Your task to perform on an android device: Open the camera Image 0: 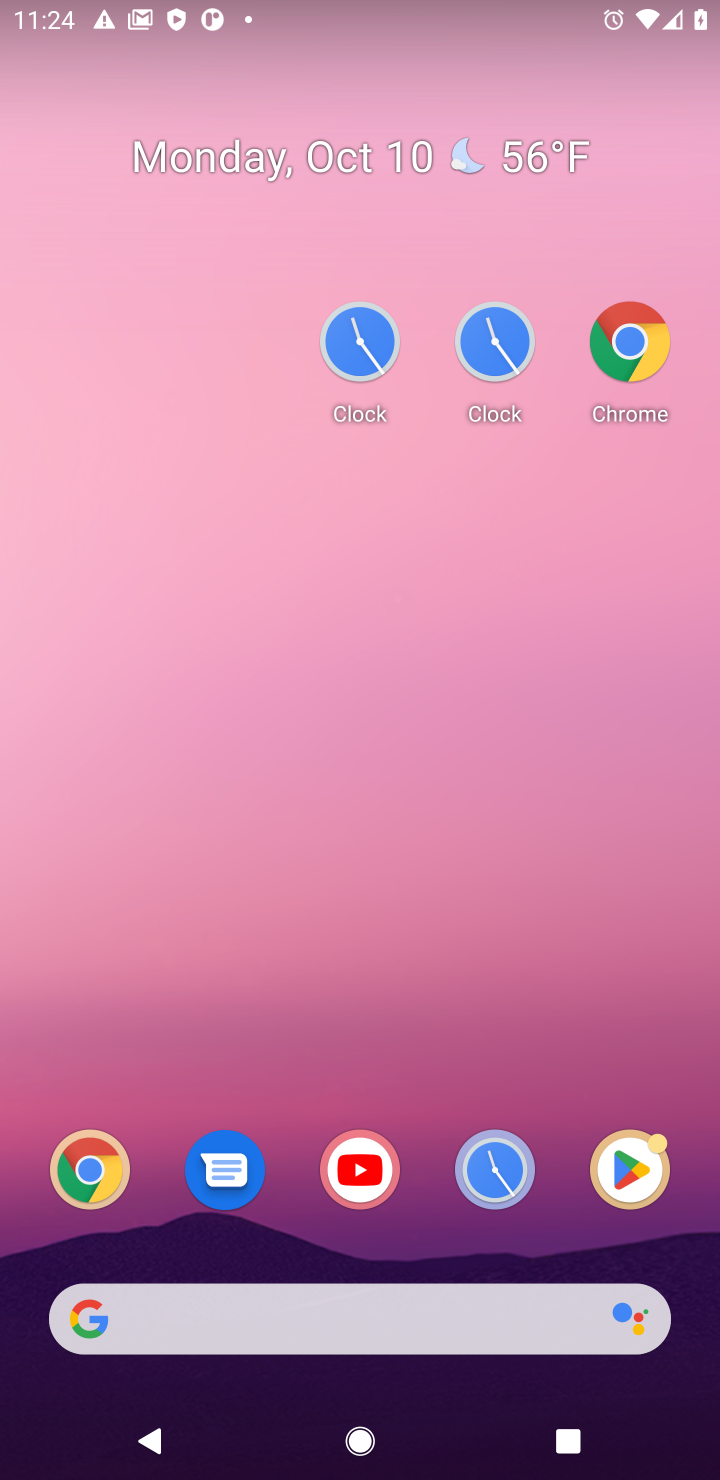
Step 0: drag from (408, 1144) to (510, 48)
Your task to perform on an android device: Open the camera Image 1: 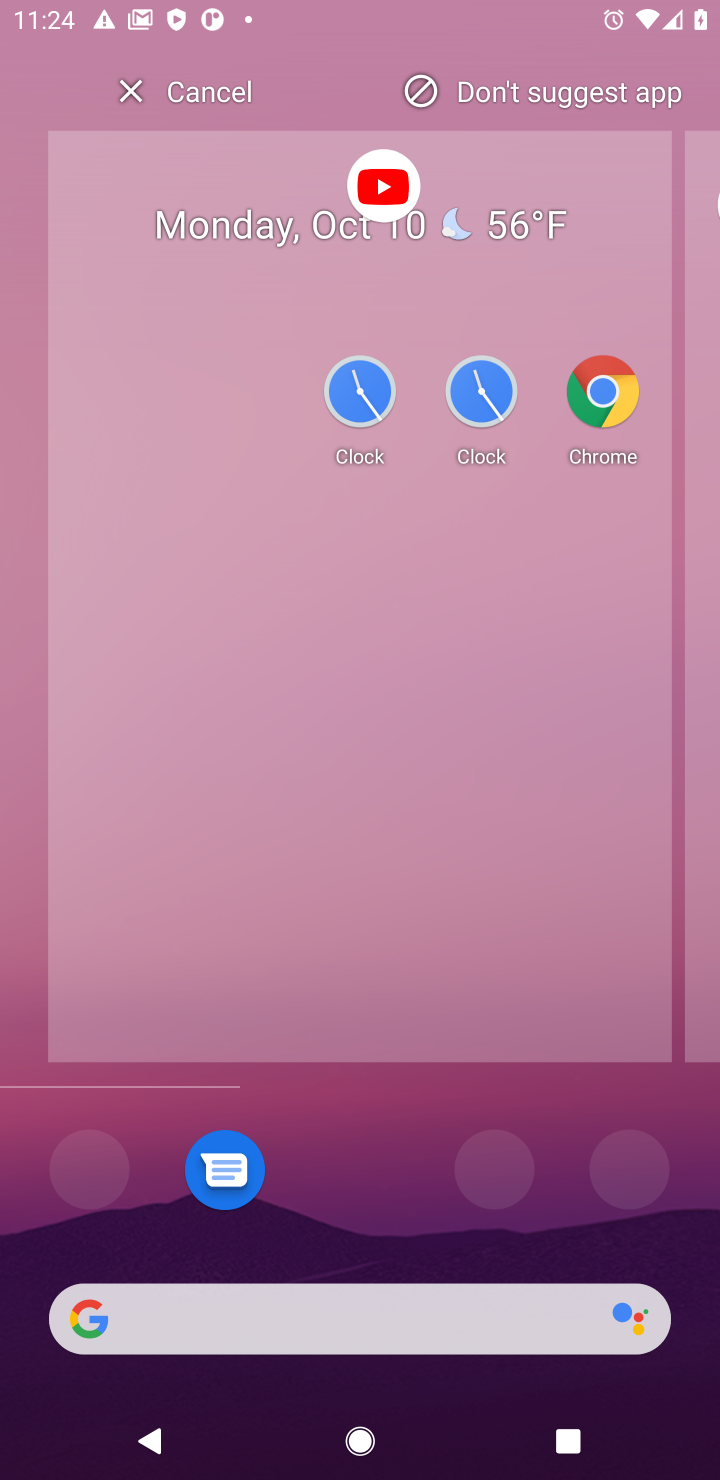
Step 1: click (233, 523)
Your task to perform on an android device: Open the camera Image 2: 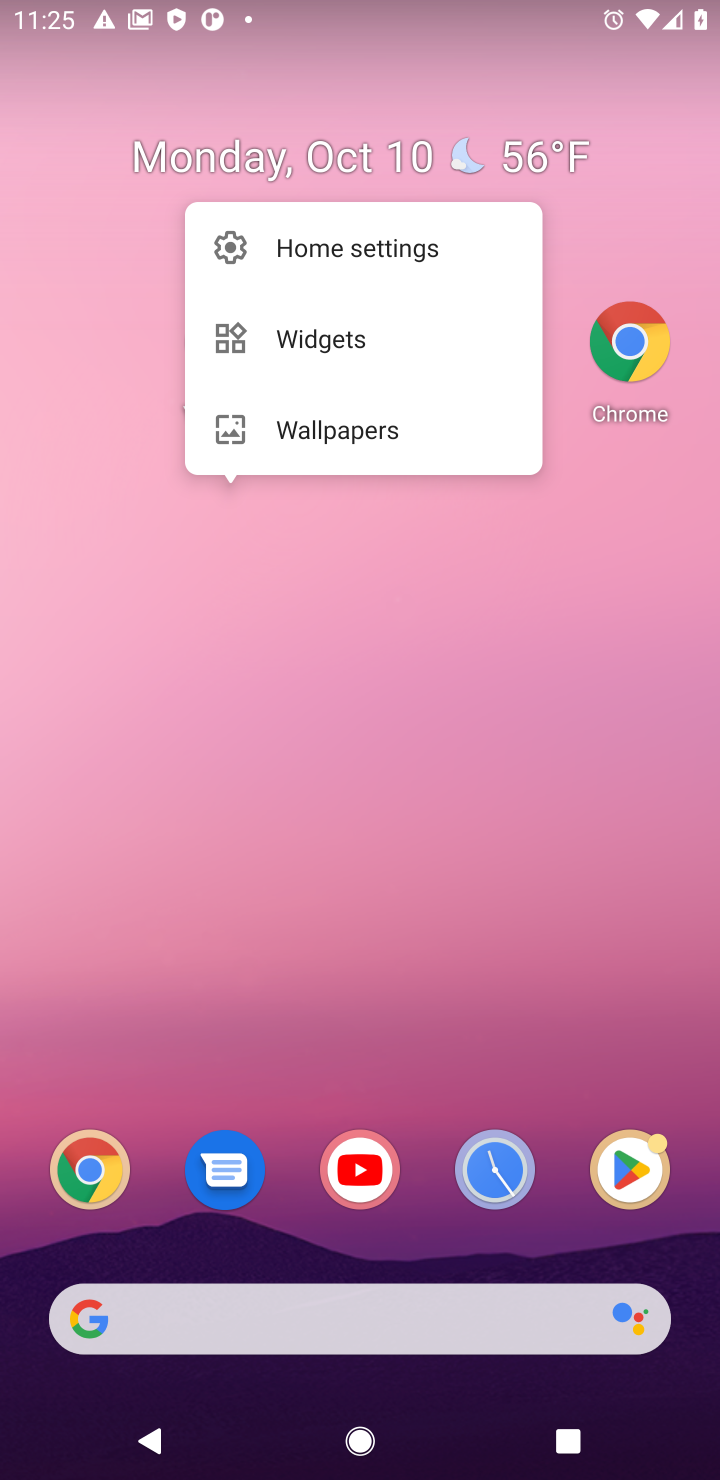
Step 2: click (387, 764)
Your task to perform on an android device: Open the camera Image 3: 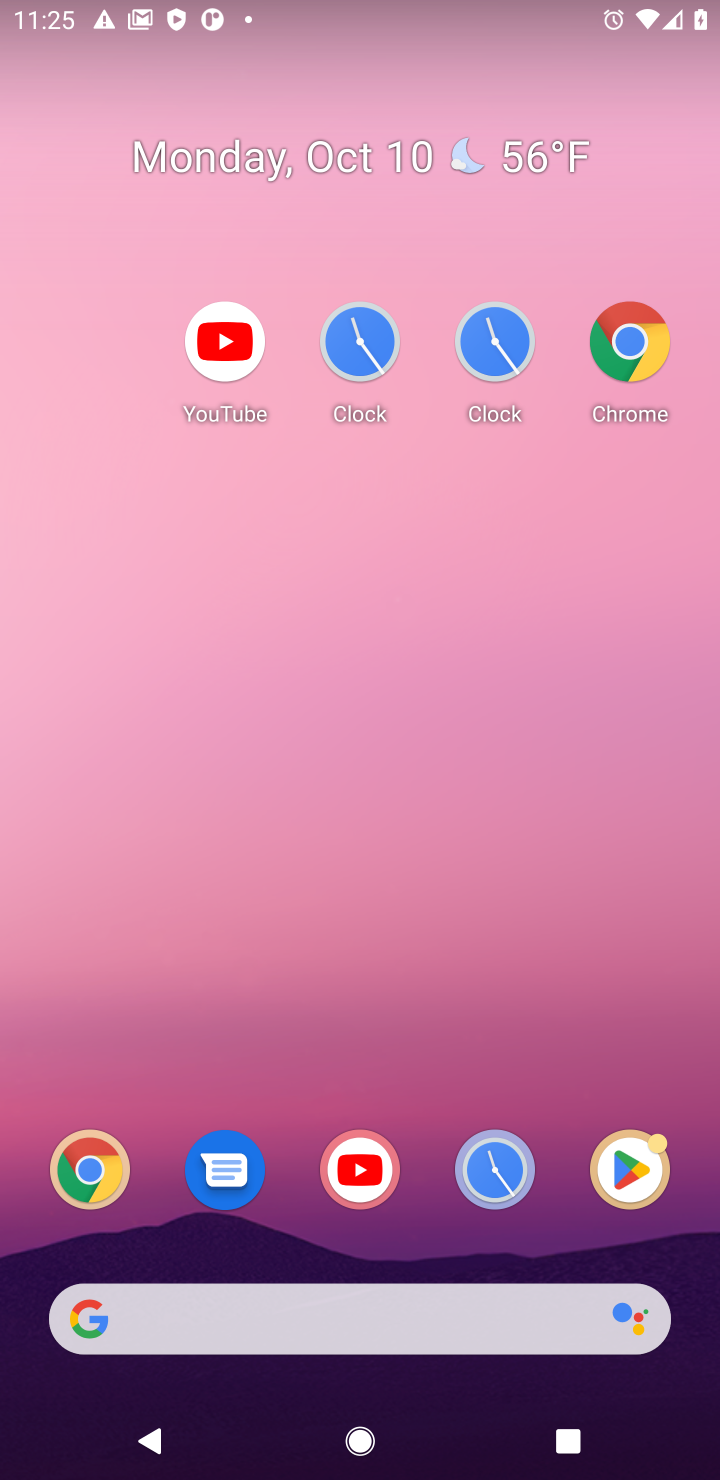
Step 3: drag from (300, 1252) to (403, 408)
Your task to perform on an android device: Open the camera Image 4: 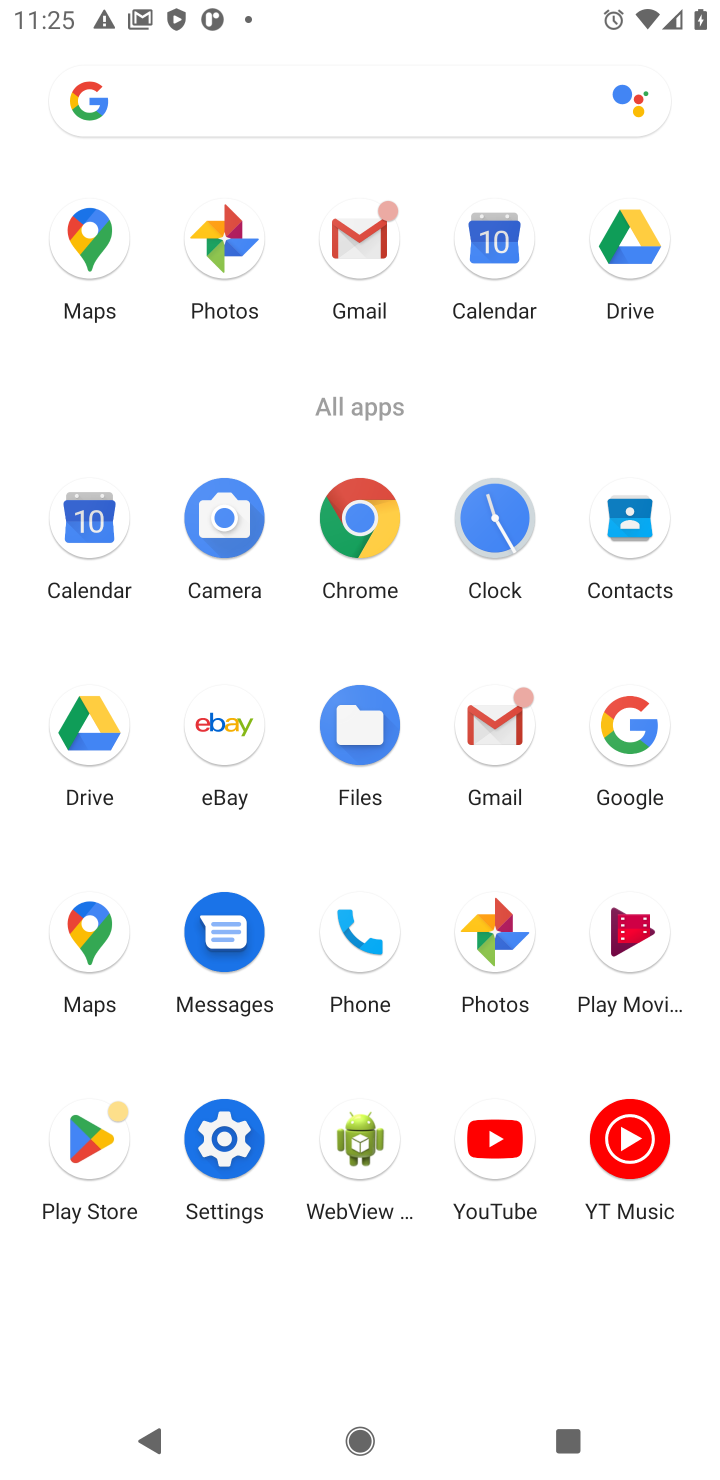
Step 4: click (208, 568)
Your task to perform on an android device: Open the camera Image 5: 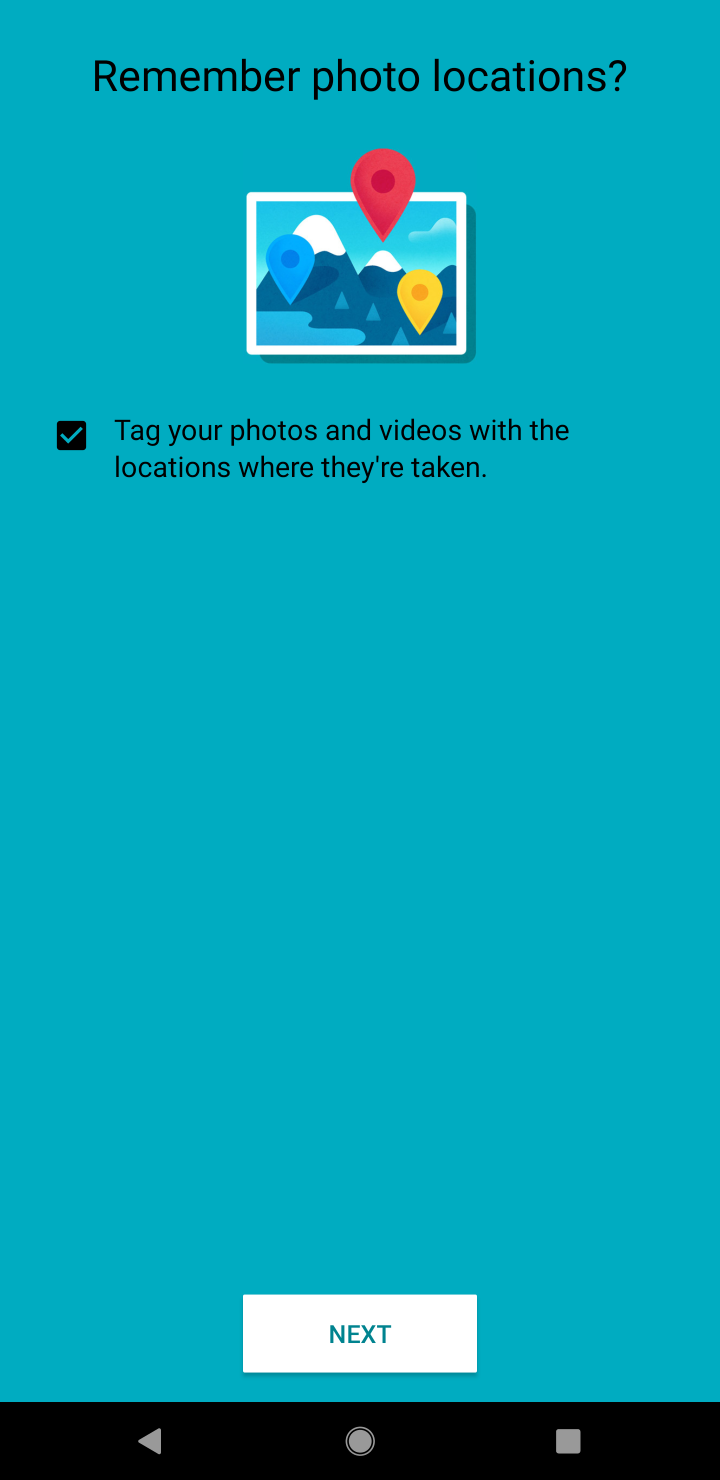
Step 5: click (334, 1331)
Your task to perform on an android device: Open the camera Image 6: 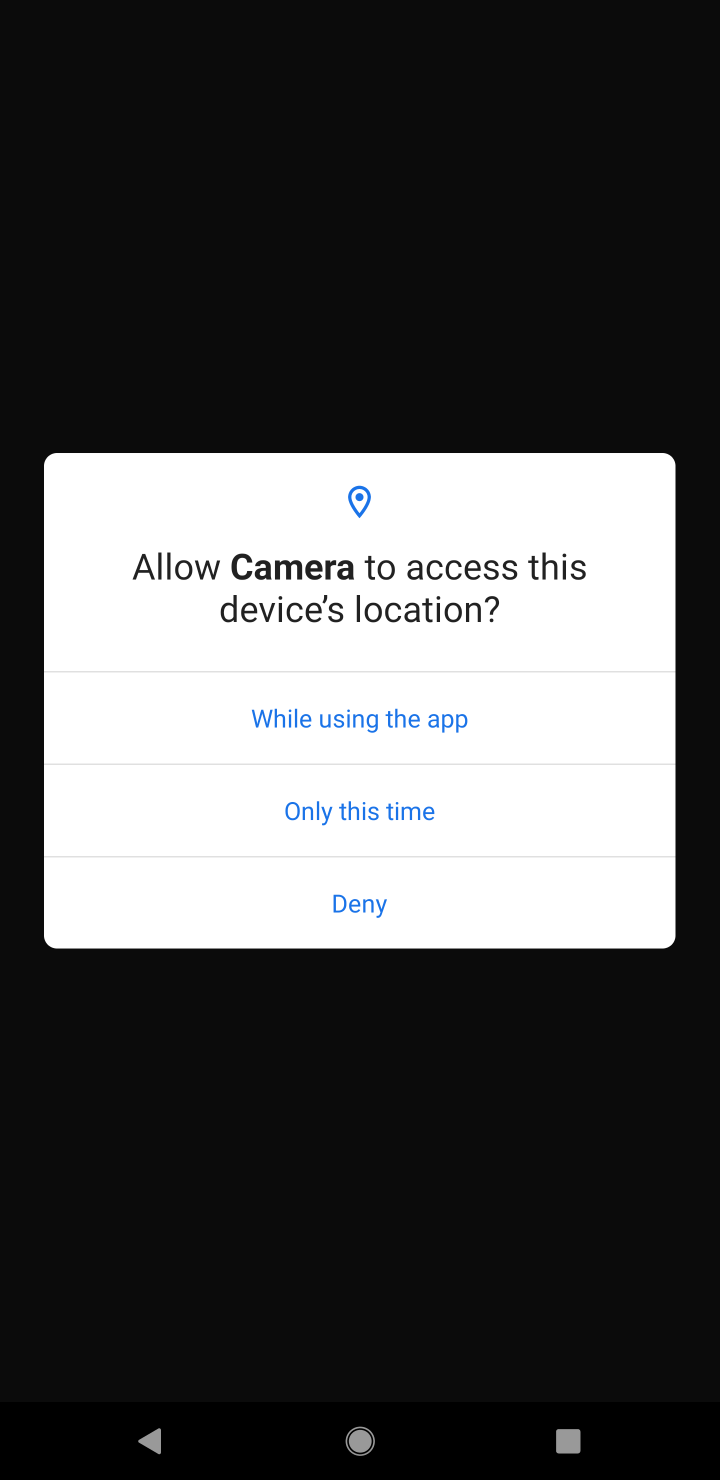
Step 6: click (400, 711)
Your task to perform on an android device: Open the camera Image 7: 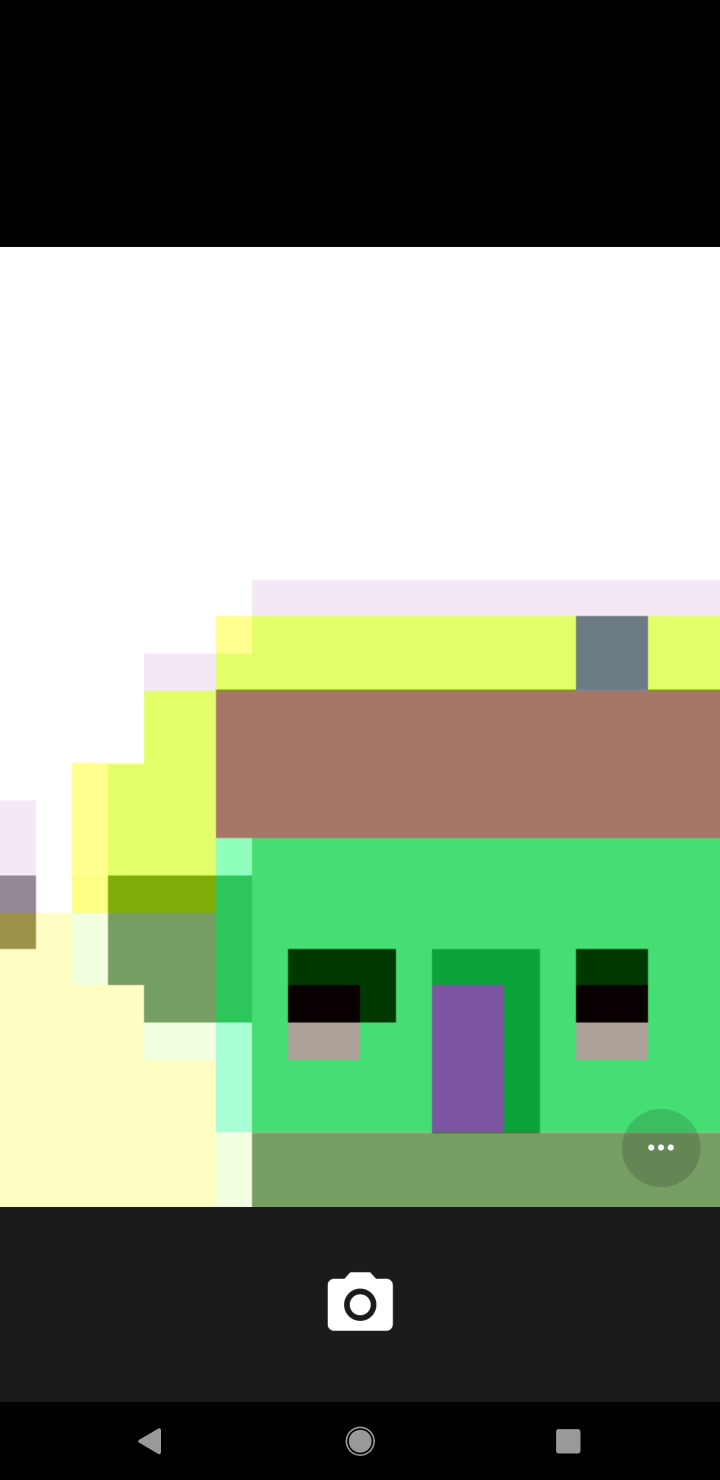
Step 7: task complete